Your task to perform on an android device: choose inbox layout in the gmail app Image 0: 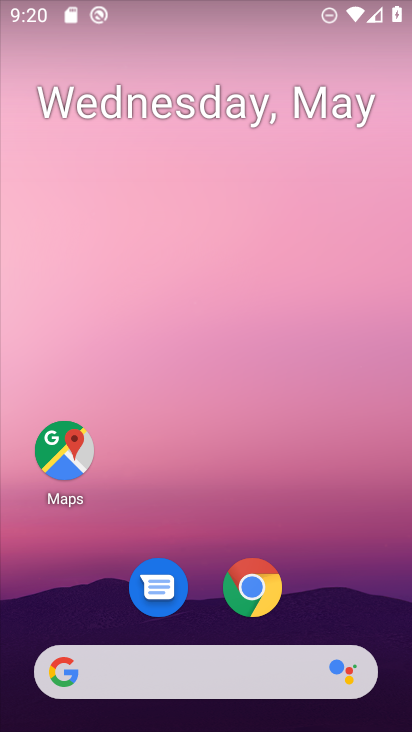
Step 0: drag from (232, 719) to (232, 149)
Your task to perform on an android device: choose inbox layout in the gmail app Image 1: 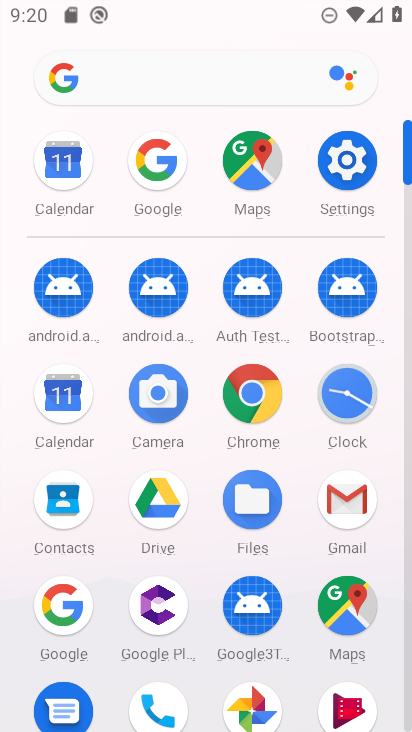
Step 1: click (357, 501)
Your task to perform on an android device: choose inbox layout in the gmail app Image 2: 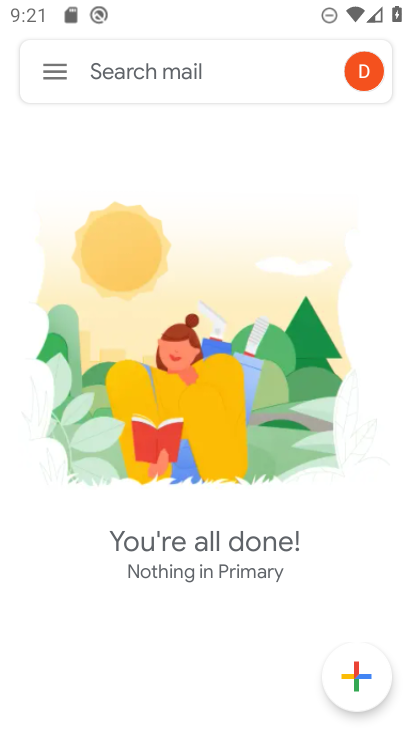
Step 2: click (48, 76)
Your task to perform on an android device: choose inbox layout in the gmail app Image 3: 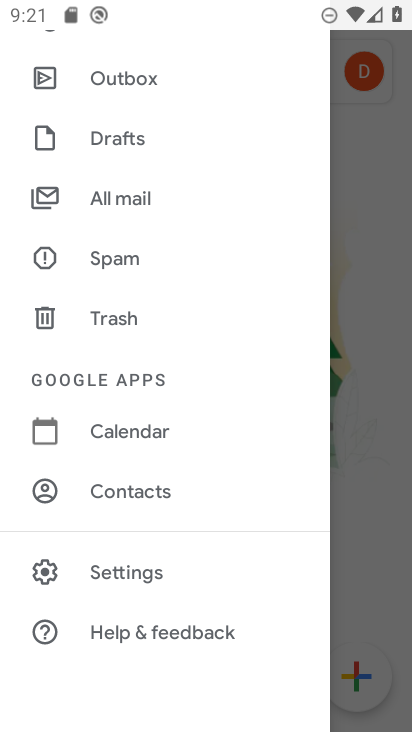
Step 3: click (130, 569)
Your task to perform on an android device: choose inbox layout in the gmail app Image 4: 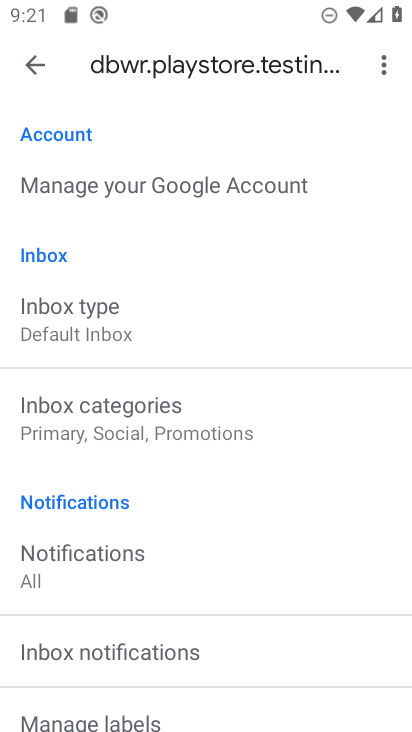
Step 4: drag from (161, 670) to (162, 564)
Your task to perform on an android device: choose inbox layout in the gmail app Image 5: 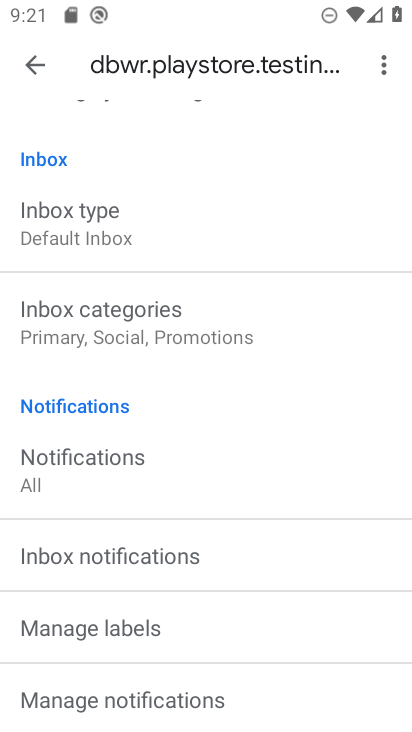
Step 5: click (77, 225)
Your task to perform on an android device: choose inbox layout in the gmail app Image 6: 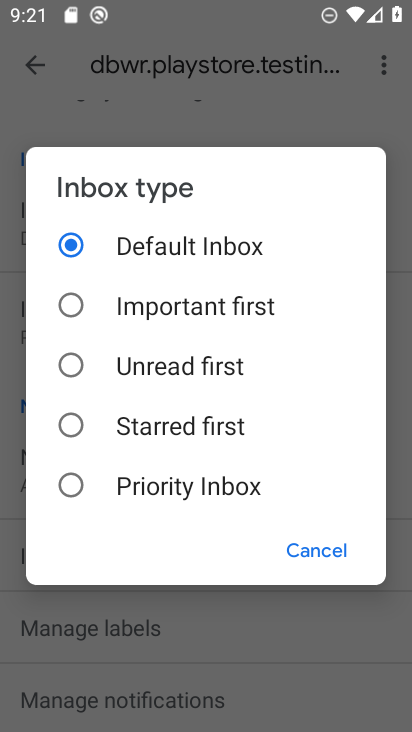
Step 6: click (69, 305)
Your task to perform on an android device: choose inbox layout in the gmail app Image 7: 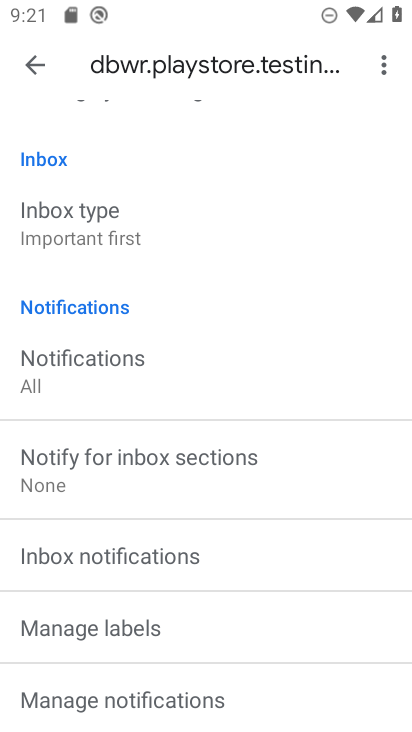
Step 7: task complete